Your task to perform on an android device: change the upload size in google photos Image 0: 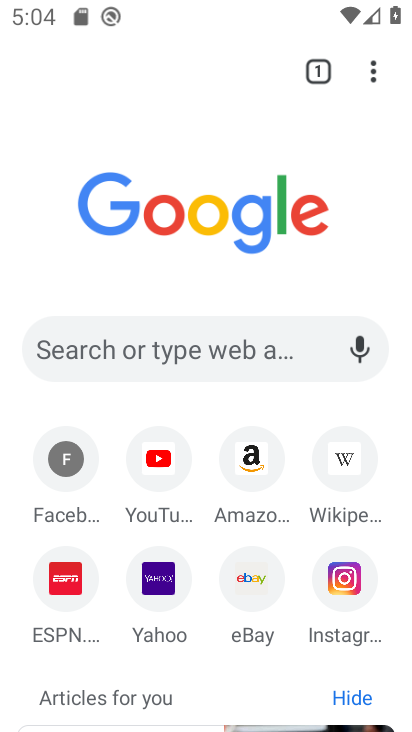
Step 0: press back button
Your task to perform on an android device: change the upload size in google photos Image 1: 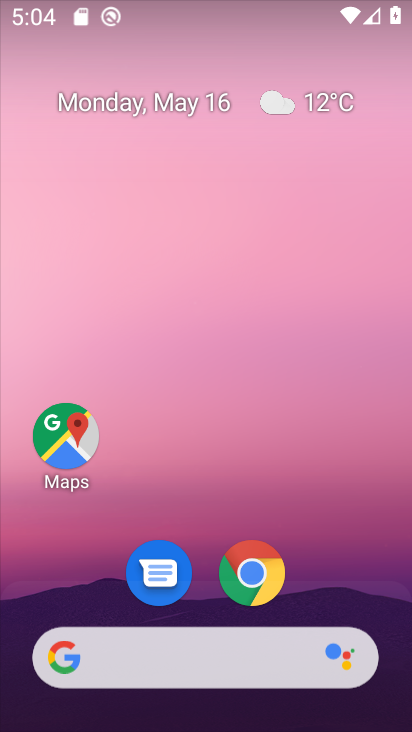
Step 1: drag from (228, 467) to (293, 40)
Your task to perform on an android device: change the upload size in google photos Image 2: 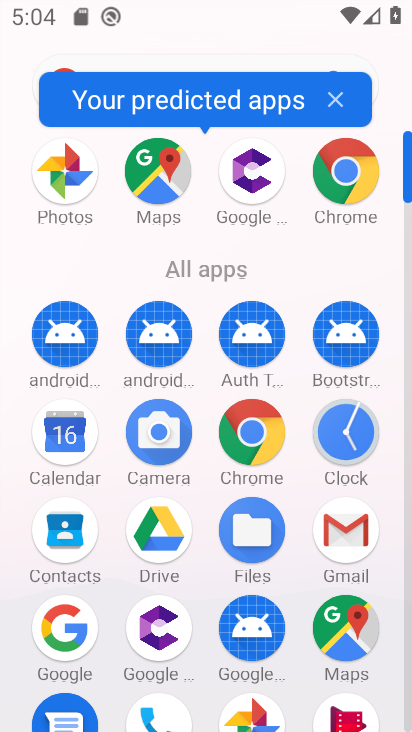
Step 2: drag from (272, 588) to (333, 145)
Your task to perform on an android device: change the upload size in google photos Image 3: 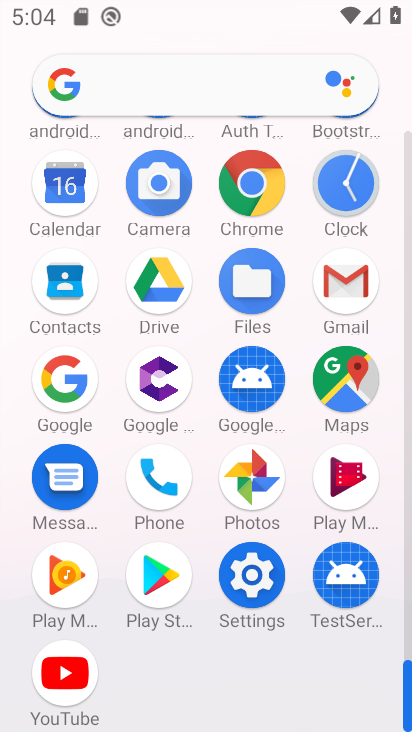
Step 3: click (246, 465)
Your task to perform on an android device: change the upload size in google photos Image 4: 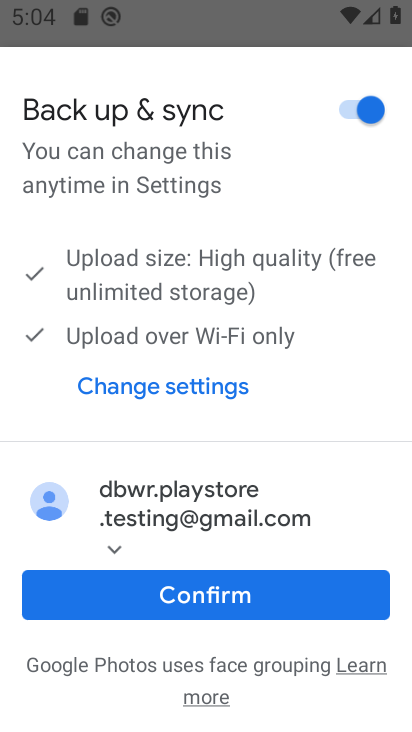
Step 4: click (254, 587)
Your task to perform on an android device: change the upload size in google photos Image 5: 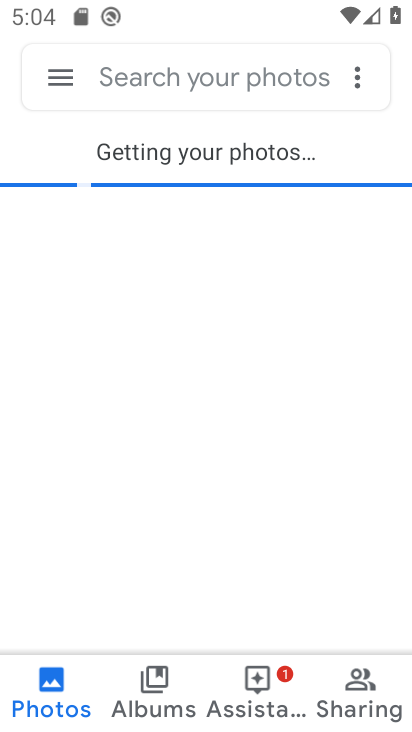
Step 5: click (59, 72)
Your task to perform on an android device: change the upload size in google photos Image 6: 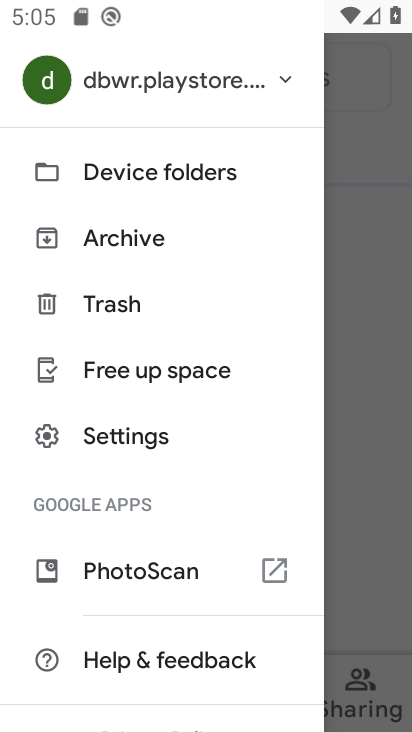
Step 6: click (133, 431)
Your task to perform on an android device: change the upload size in google photos Image 7: 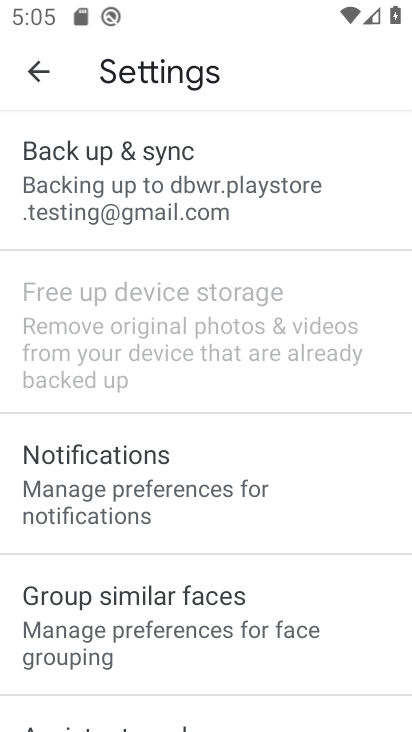
Step 7: click (125, 175)
Your task to perform on an android device: change the upload size in google photos Image 8: 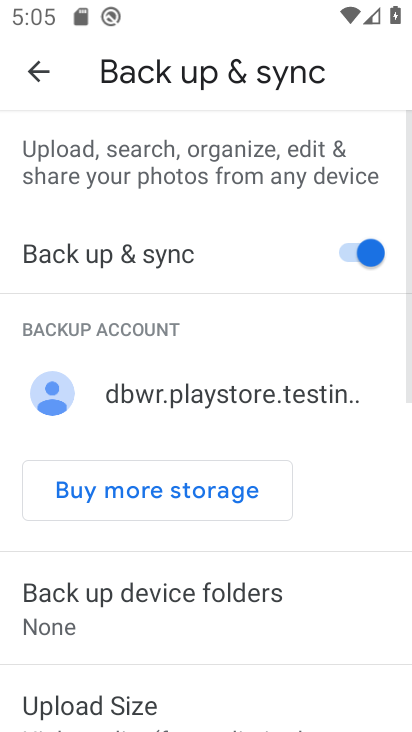
Step 8: drag from (134, 704) to (184, 402)
Your task to perform on an android device: change the upload size in google photos Image 9: 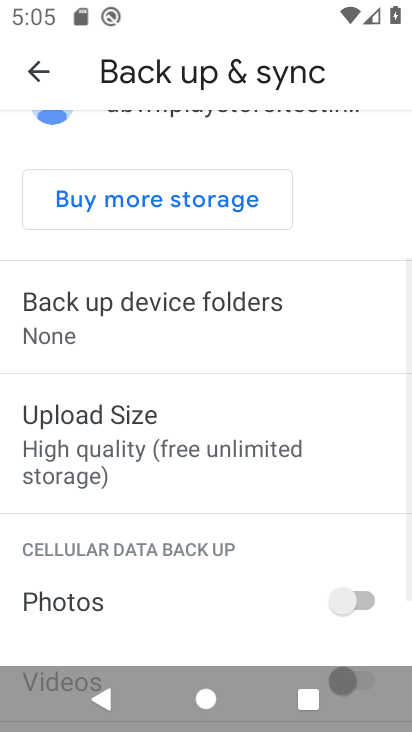
Step 9: click (138, 442)
Your task to perform on an android device: change the upload size in google photos Image 10: 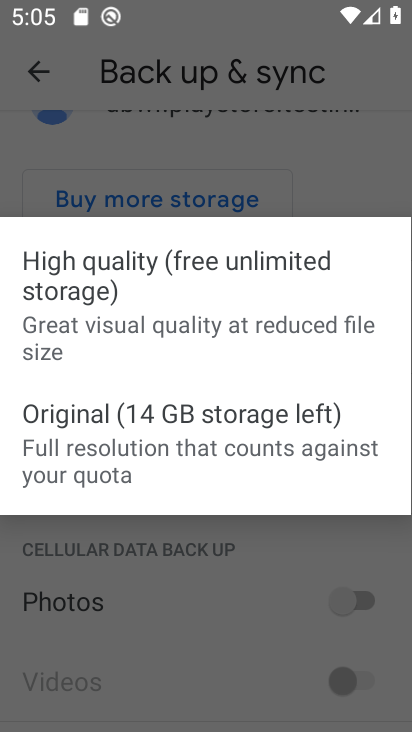
Step 10: click (143, 431)
Your task to perform on an android device: change the upload size in google photos Image 11: 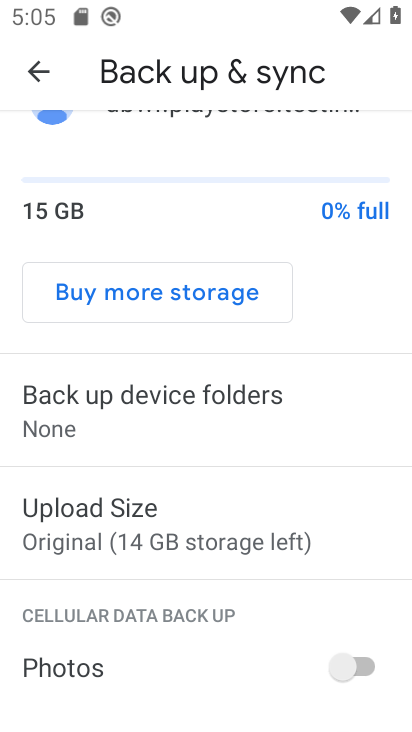
Step 11: task complete